Your task to perform on an android device: turn off translation in the chrome app Image 0: 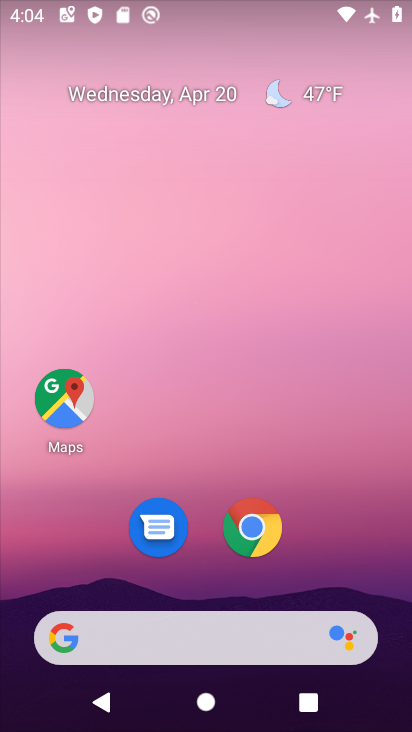
Step 0: click (269, 526)
Your task to perform on an android device: turn off translation in the chrome app Image 1: 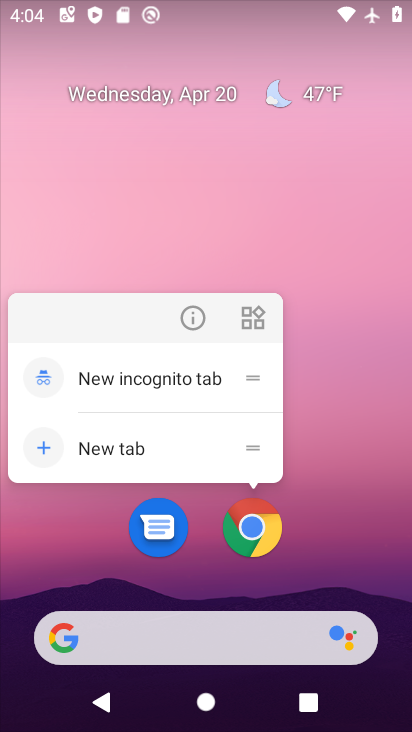
Step 1: click (269, 526)
Your task to perform on an android device: turn off translation in the chrome app Image 2: 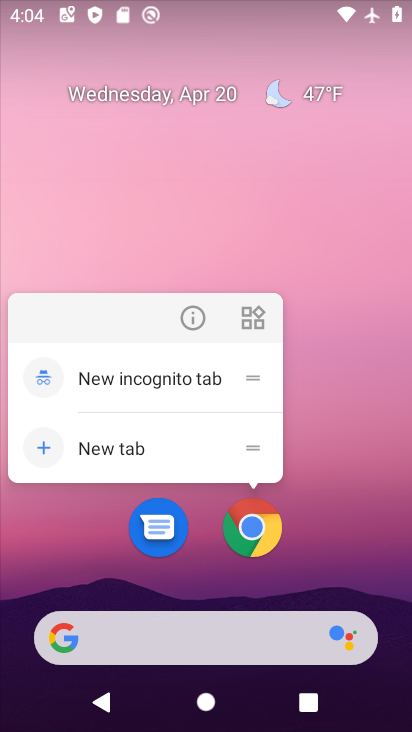
Step 2: click (269, 526)
Your task to perform on an android device: turn off translation in the chrome app Image 3: 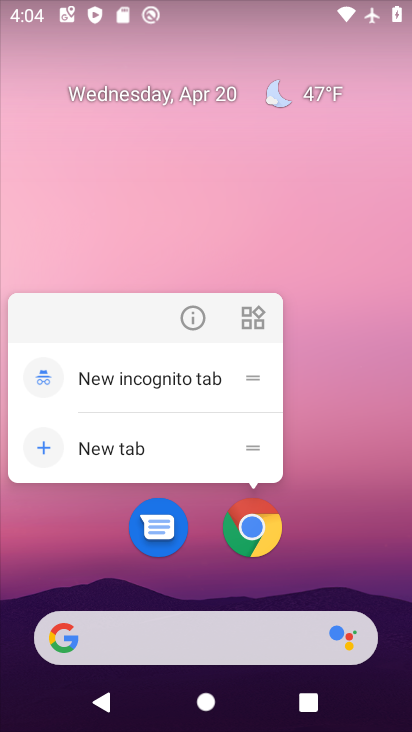
Step 3: click (269, 527)
Your task to perform on an android device: turn off translation in the chrome app Image 4: 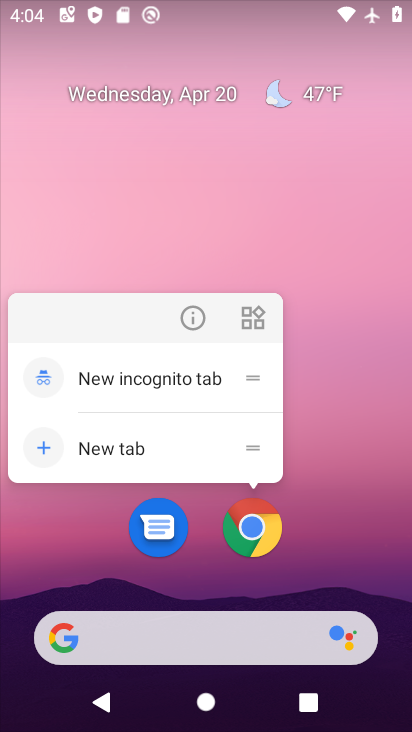
Step 4: click (269, 520)
Your task to perform on an android device: turn off translation in the chrome app Image 5: 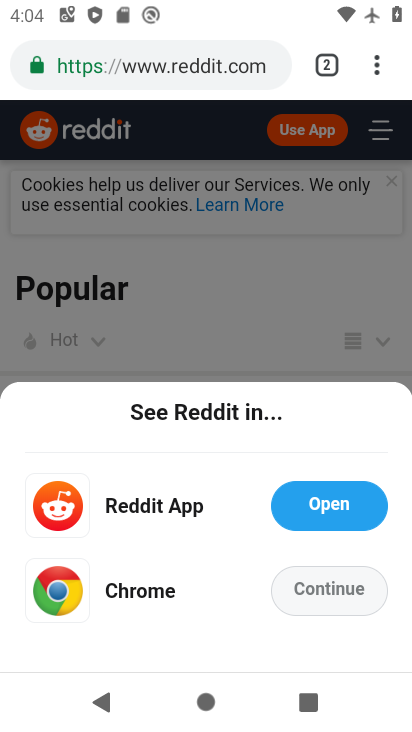
Step 5: click (379, 66)
Your task to perform on an android device: turn off translation in the chrome app Image 6: 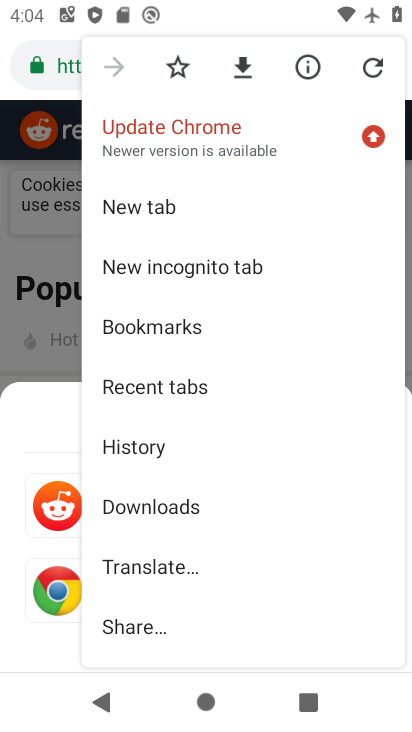
Step 6: click (178, 572)
Your task to perform on an android device: turn off translation in the chrome app Image 7: 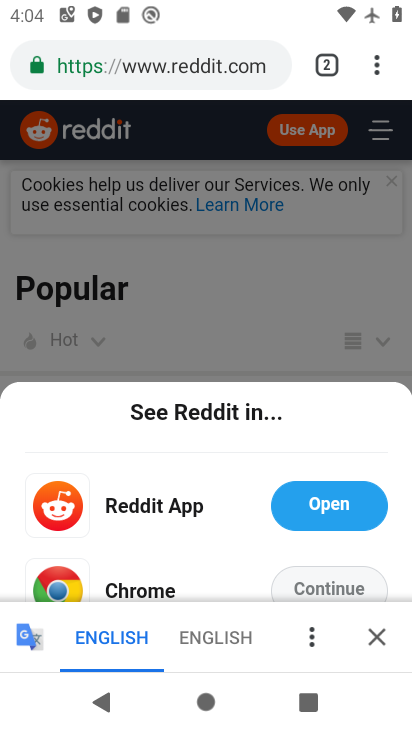
Step 7: task complete